Your task to perform on an android device: change keyboard looks Image 0: 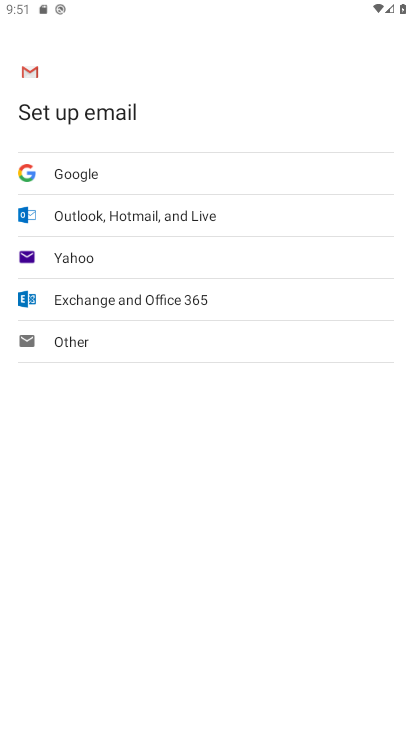
Step 0: press home button
Your task to perform on an android device: change keyboard looks Image 1: 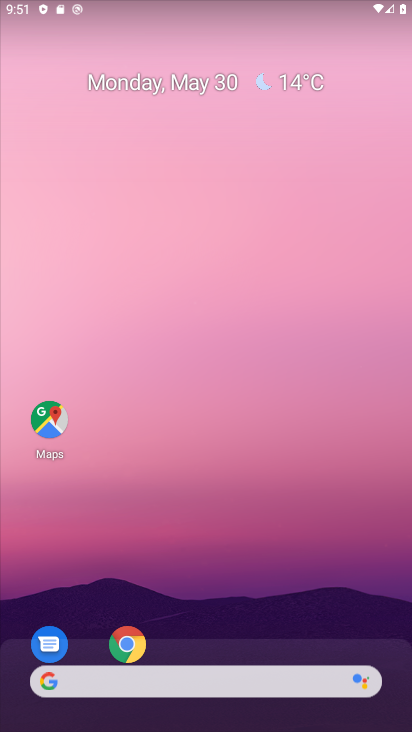
Step 1: drag from (228, 345) to (238, 285)
Your task to perform on an android device: change keyboard looks Image 2: 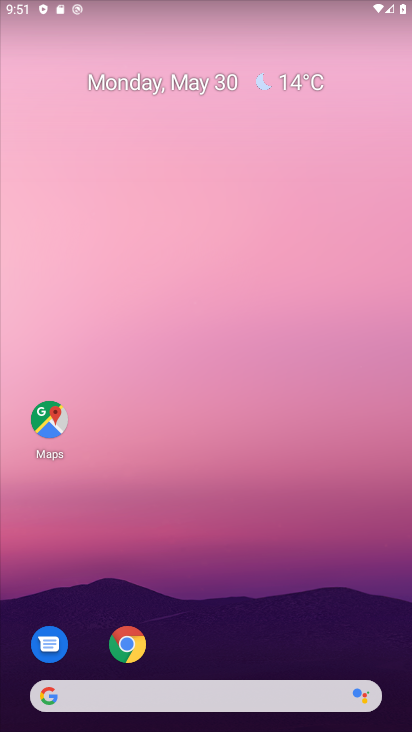
Step 2: drag from (210, 579) to (248, 178)
Your task to perform on an android device: change keyboard looks Image 3: 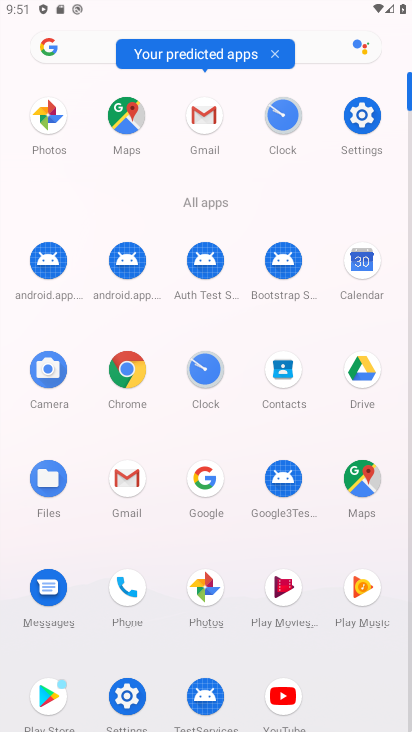
Step 3: click (366, 115)
Your task to perform on an android device: change keyboard looks Image 4: 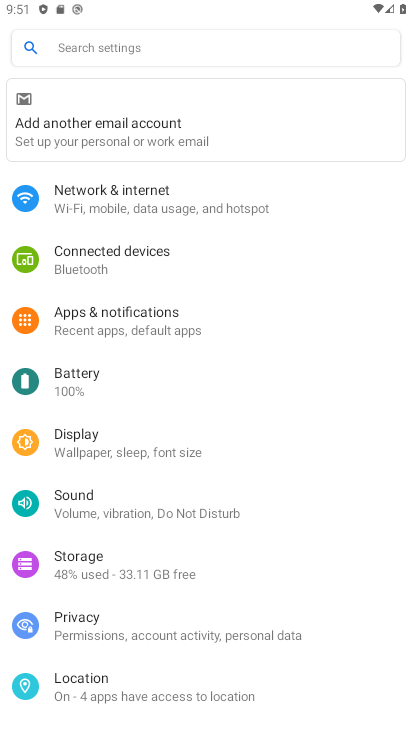
Step 4: drag from (123, 663) to (193, 297)
Your task to perform on an android device: change keyboard looks Image 5: 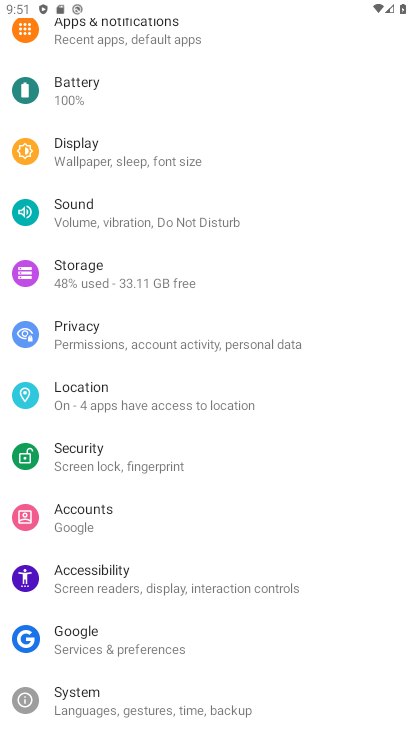
Step 5: click (124, 700)
Your task to perform on an android device: change keyboard looks Image 6: 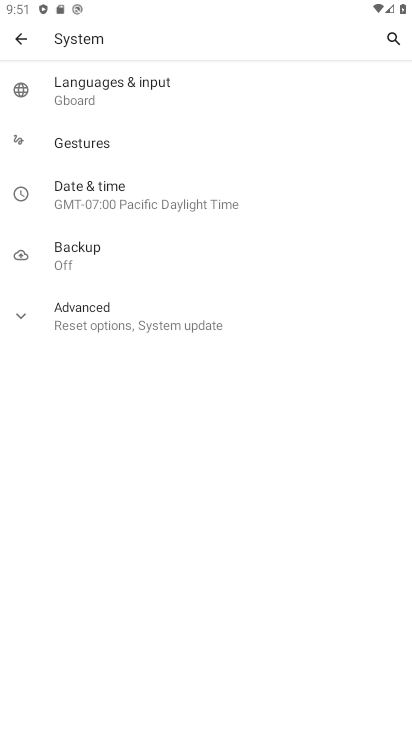
Step 6: click (84, 99)
Your task to perform on an android device: change keyboard looks Image 7: 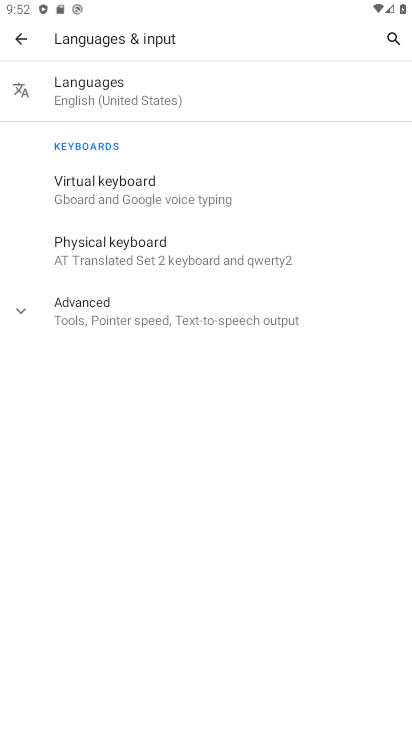
Step 7: click (210, 199)
Your task to perform on an android device: change keyboard looks Image 8: 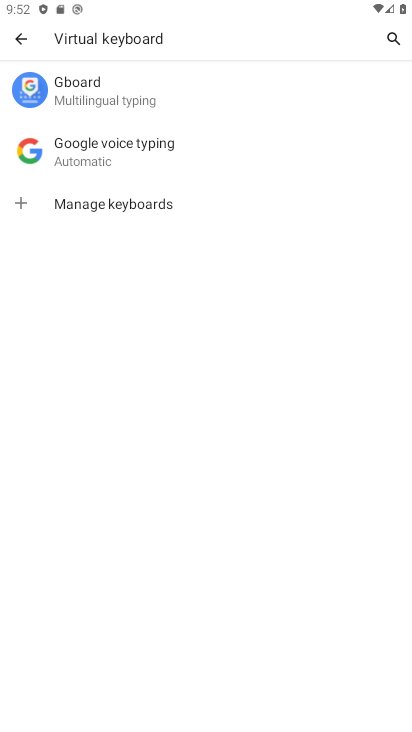
Step 8: task complete